Your task to perform on an android device: set default search engine in the chrome app Image 0: 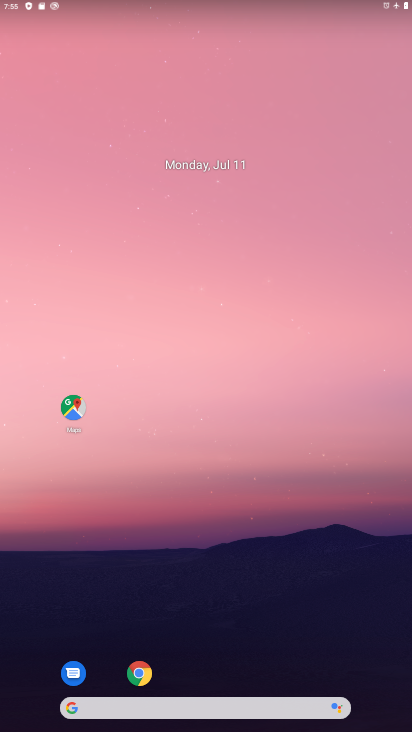
Step 0: drag from (321, 652) to (306, 197)
Your task to perform on an android device: set default search engine in the chrome app Image 1: 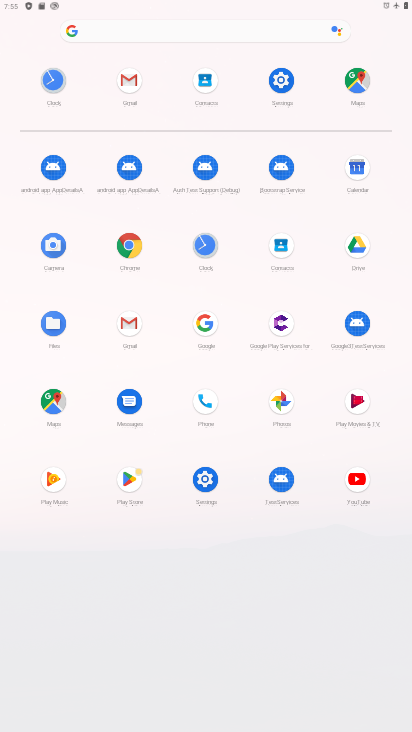
Step 1: click (132, 244)
Your task to perform on an android device: set default search engine in the chrome app Image 2: 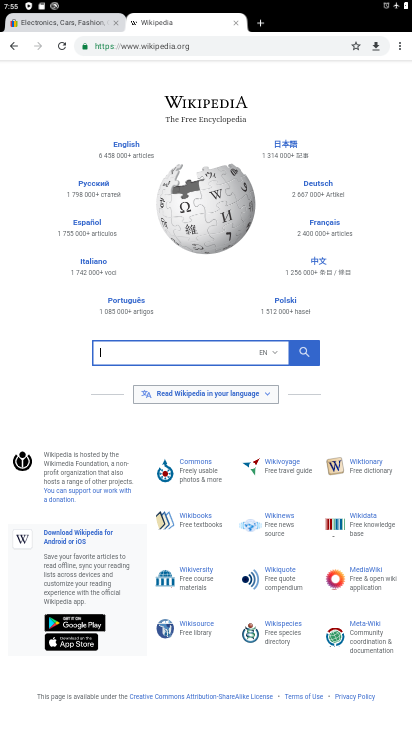
Step 2: click (403, 44)
Your task to perform on an android device: set default search engine in the chrome app Image 3: 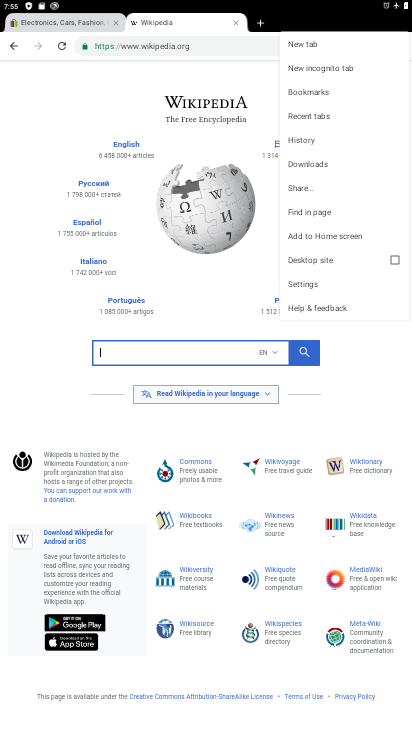
Step 3: click (313, 283)
Your task to perform on an android device: set default search engine in the chrome app Image 4: 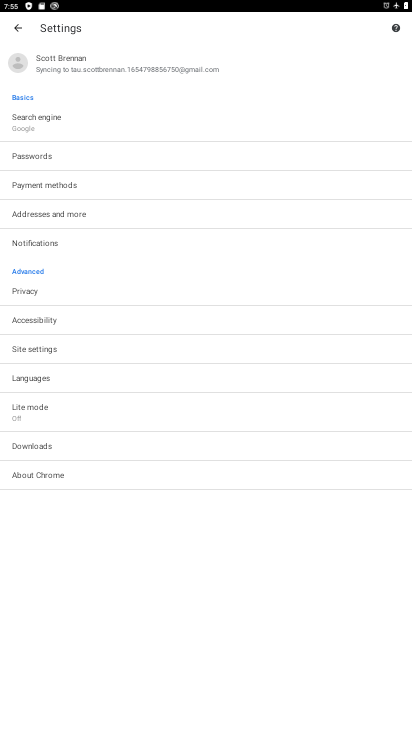
Step 4: click (61, 113)
Your task to perform on an android device: set default search engine in the chrome app Image 5: 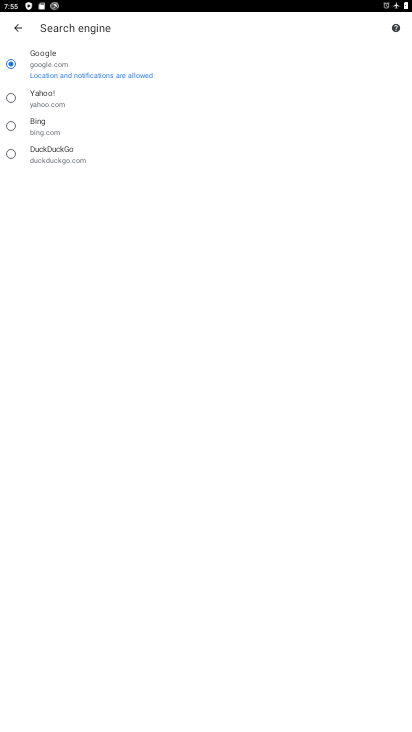
Step 5: task complete